Your task to perform on an android device: View the shopping cart on walmart. Add "energizer triple a" to the cart on walmart Image 0: 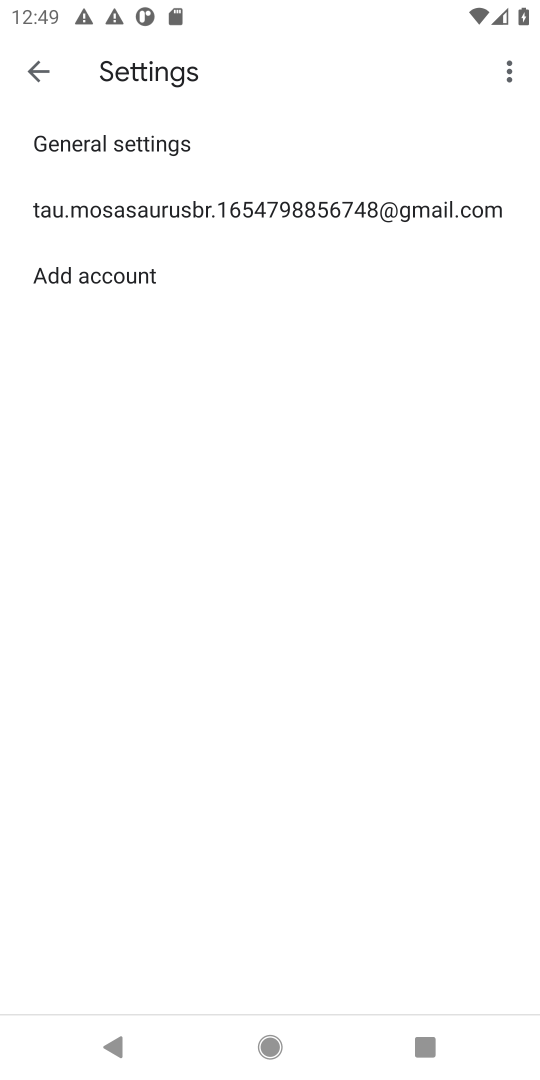
Step 0: press home button
Your task to perform on an android device: View the shopping cart on walmart. Add "energizer triple a" to the cart on walmart Image 1: 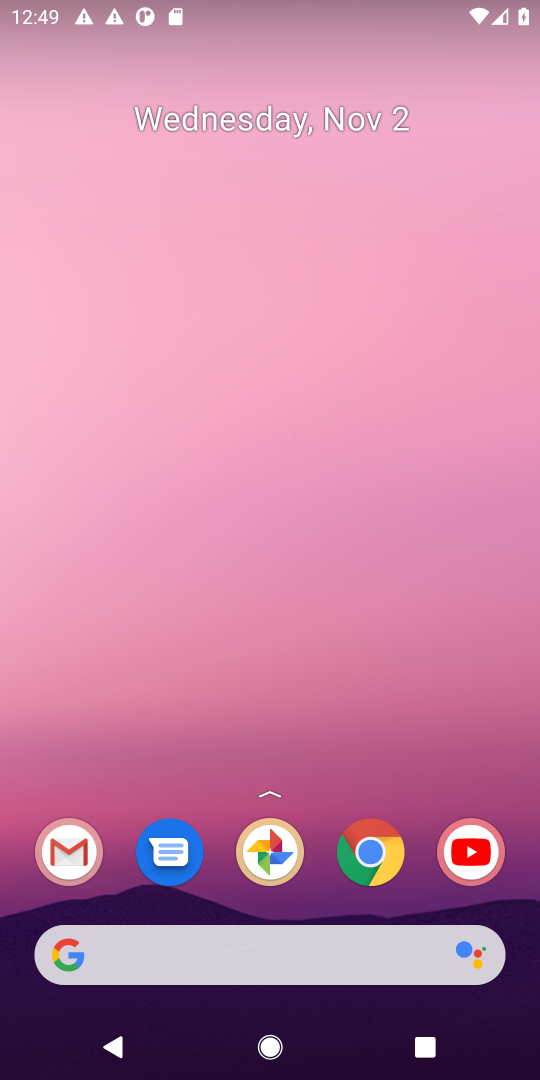
Step 1: click (59, 947)
Your task to perform on an android device: View the shopping cart on walmart. Add "energizer triple a" to the cart on walmart Image 2: 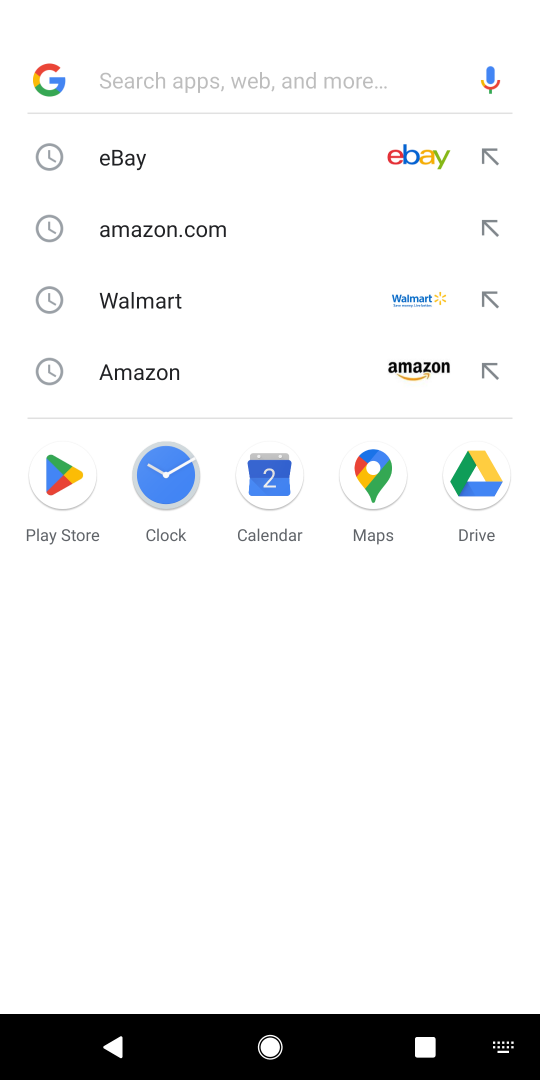
Step 2: click (156, 289)
Your task to perform on an android device: View the shopping cart on walmart. Add "energizer triple a" to the cart on walmart Image 3: 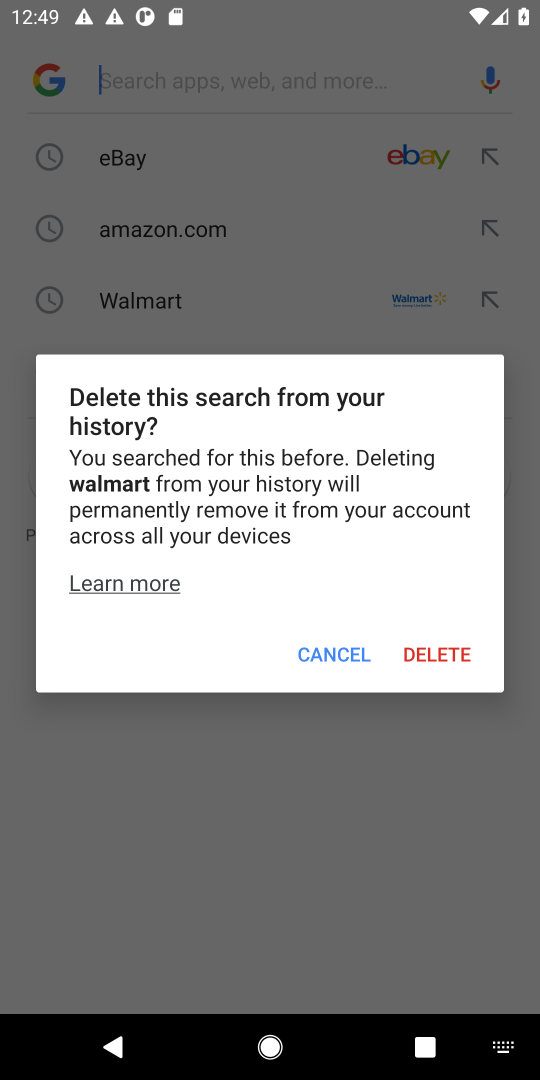
Step 3: click (300, 654)
Your task to perform on an android device: View the shopping cart on walmart. Add "energizer triple a" to the cart on walmart Image 4: 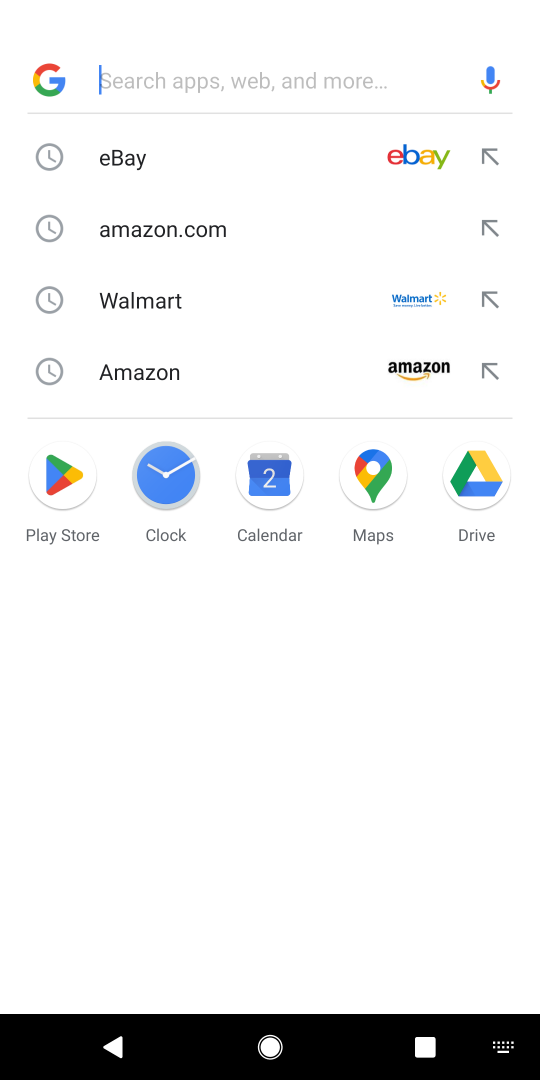
Step 4: click (153, 297)
Your task to perform on an android device: View the shopping cart on walmart. Add "energizer triple a" to the cart on walmart Image 5: 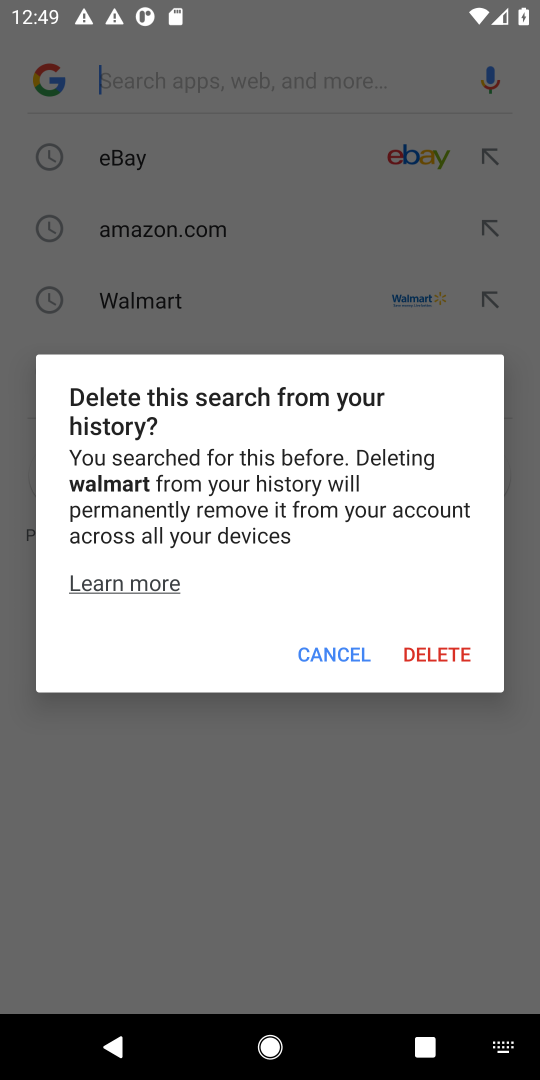
Step 5: click (407, 652)
Your task to perform on an android device: View the shopping cart on walmart. Add "energizer triple a" to the cart on walmart Image 6: 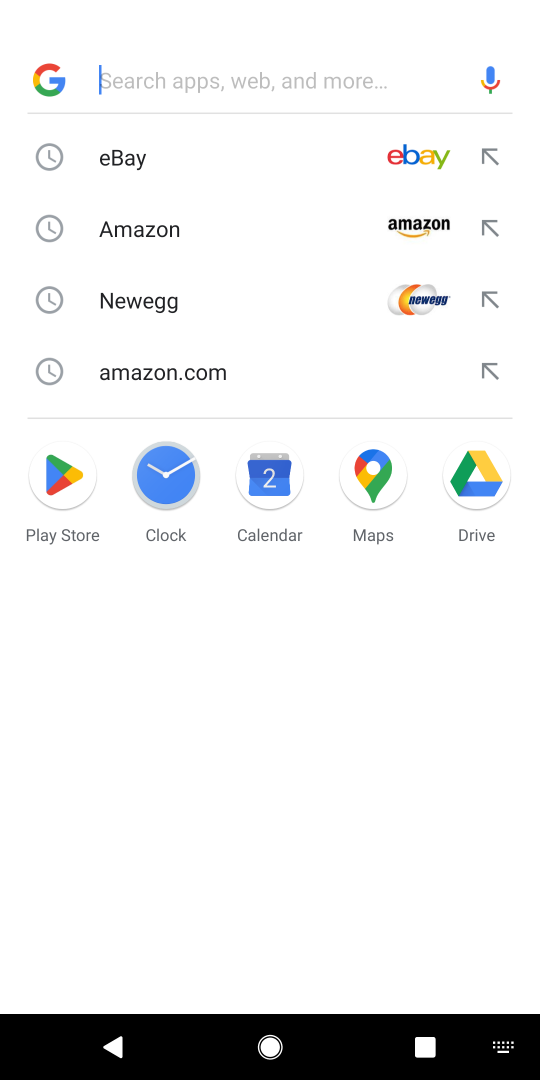
Step 6: type "walmart"
Your task to perform on an android device: View the shopping cart on walmart. Add "energizer triple a" to the cart on walmart Image 7: 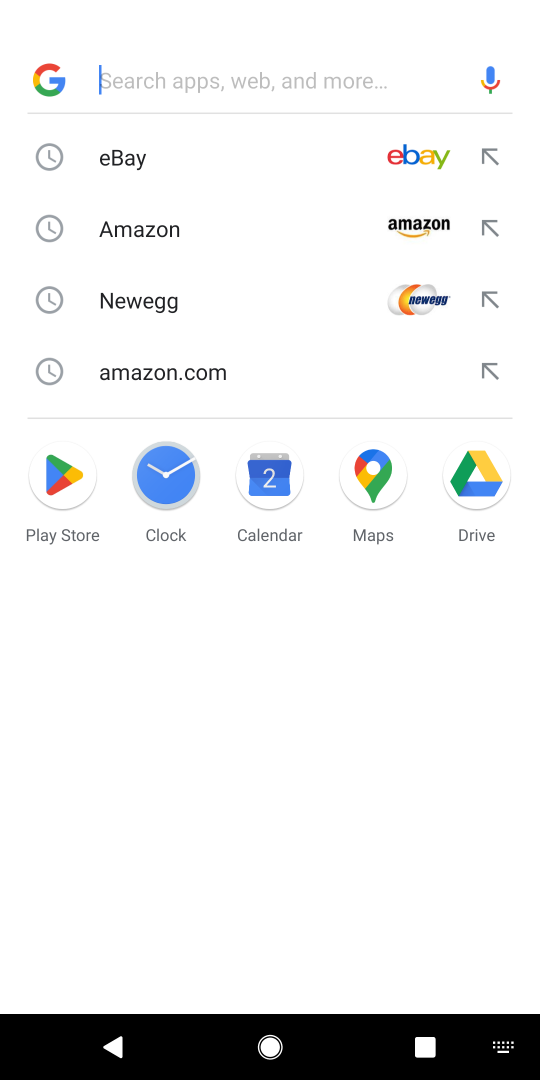
Step 7: click (132, 78)
Your task to perform on an android device: View the shopping cart on walmart. Add "energizer triple a" to the cart on walmart Image 8: 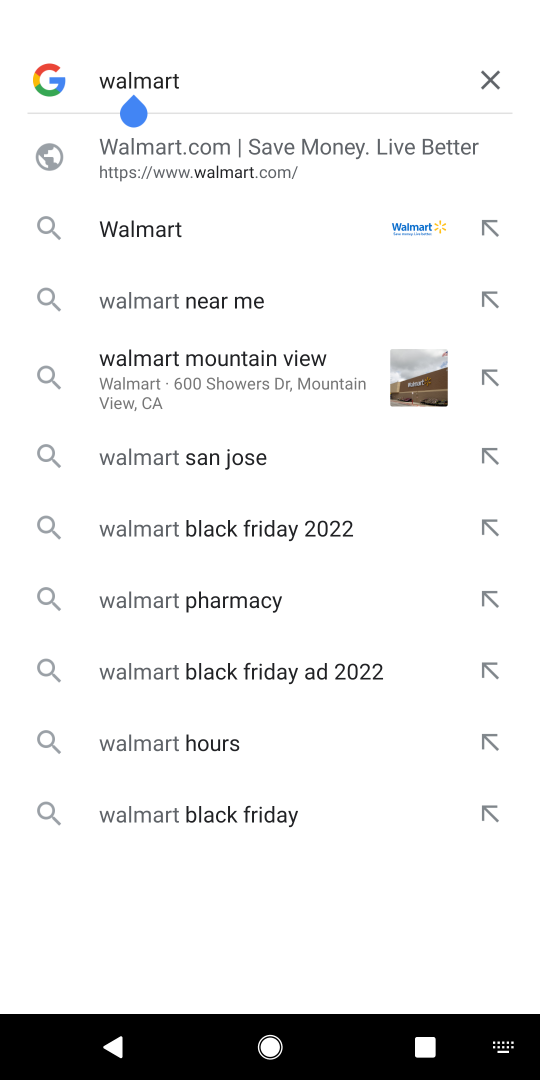
Step 8: press enter
Your task to perform on an android device: View the shopping cart on walmart. Add "energizer triple a" to the cart on walmart Image 9: 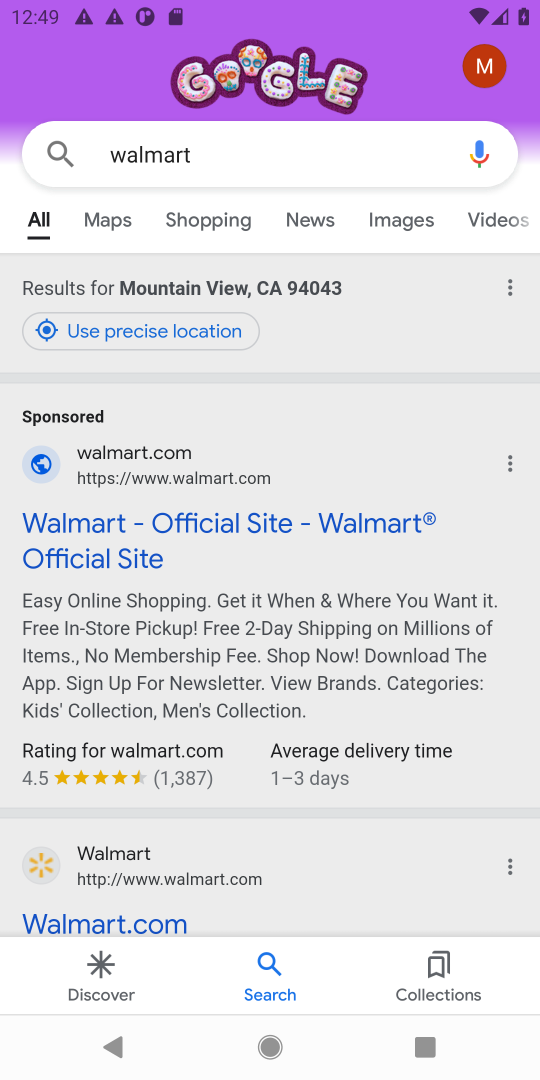
Step 9: click (162, 922)
Your task to perform on an android device: View the shopping cart on walmart. Add "energizer triple a" to the cart on walmart Image 10: 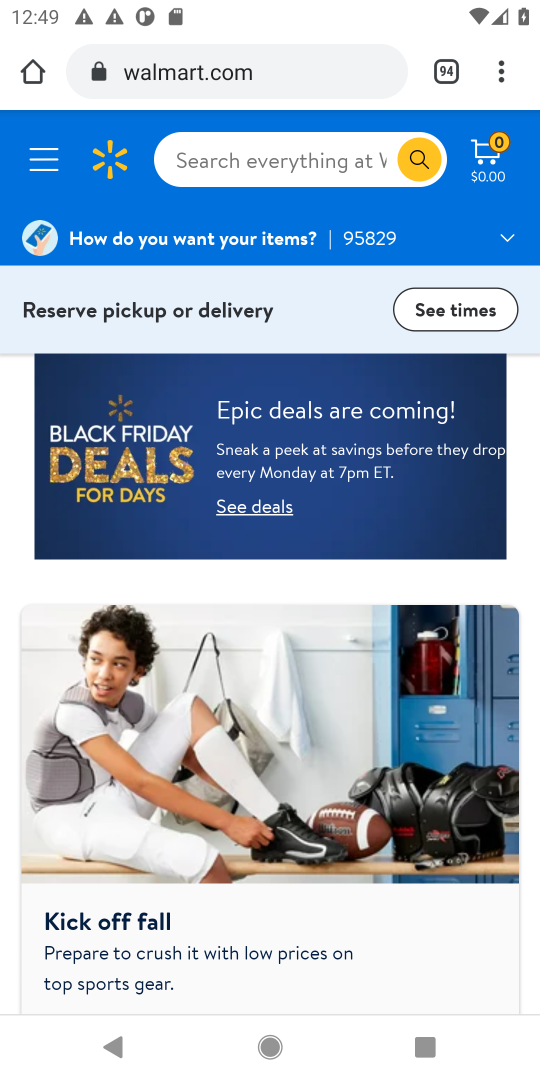
Step 10: click (244, 154)
Your task to perform on an android device: View the shopping cart on walmart. Add "energizer triple a" to the cart on walmart Image 11: 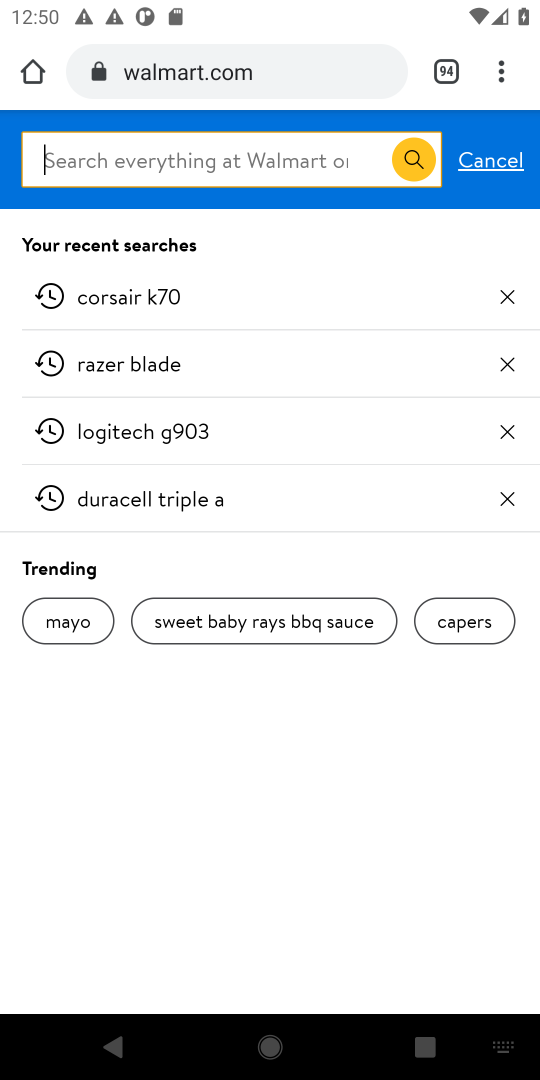
Step 11: type "energizer triple a"
Your task to perform on an android device: View the shopping cart on walmart. Add "energizer triple a" to the cart on walmart Image 12: 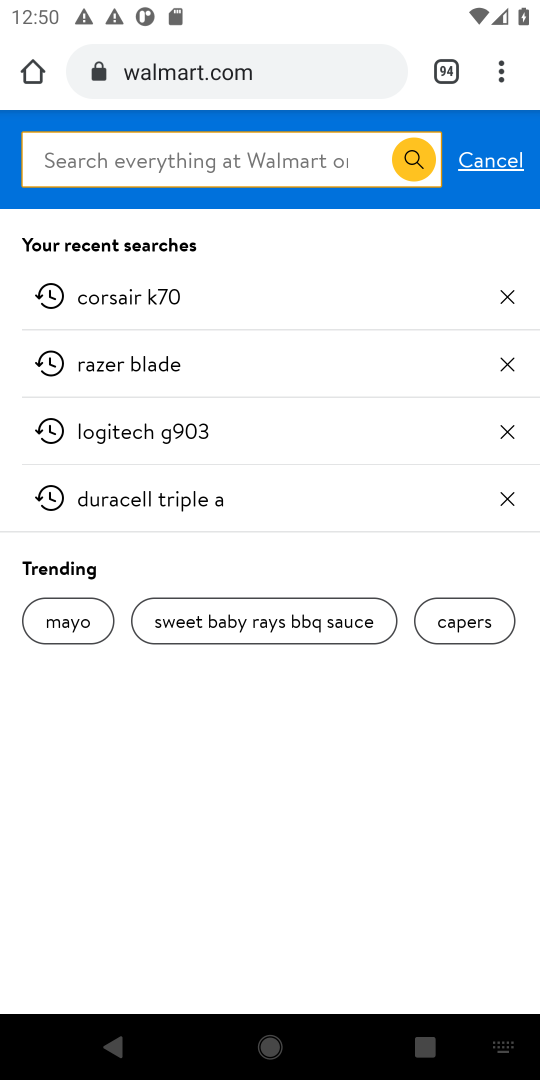
Step 12: click (94, 157)
Your task to perform on an android device: View the shopping cart on walmart. Add "energizer triple a" to the cart on walmart Image 13: 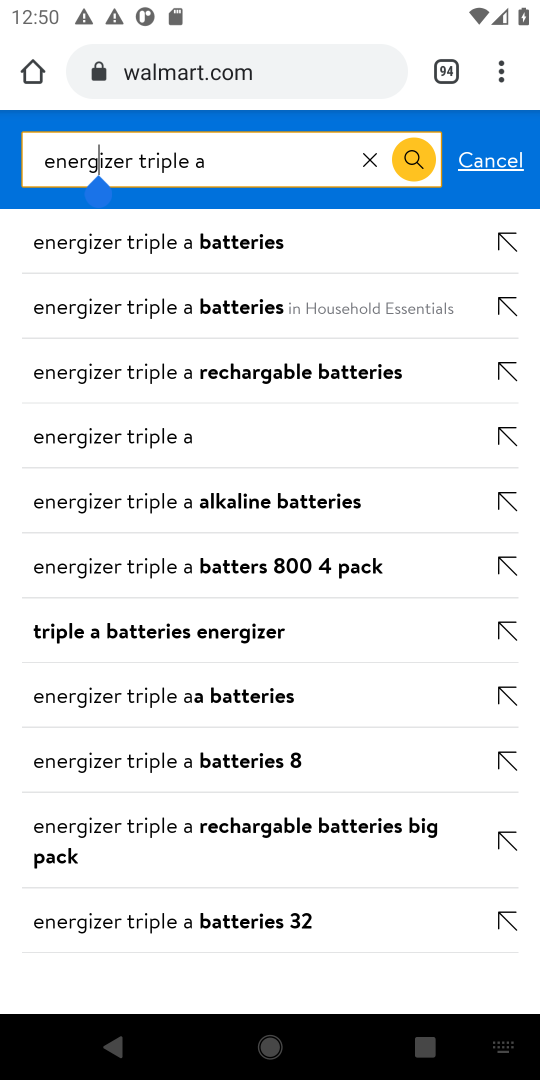
Step 13: press enter
Your task to perform on an android device: View the shopping cart on walmart. Add "energizer triple a" to the cart on walmart Image 14: 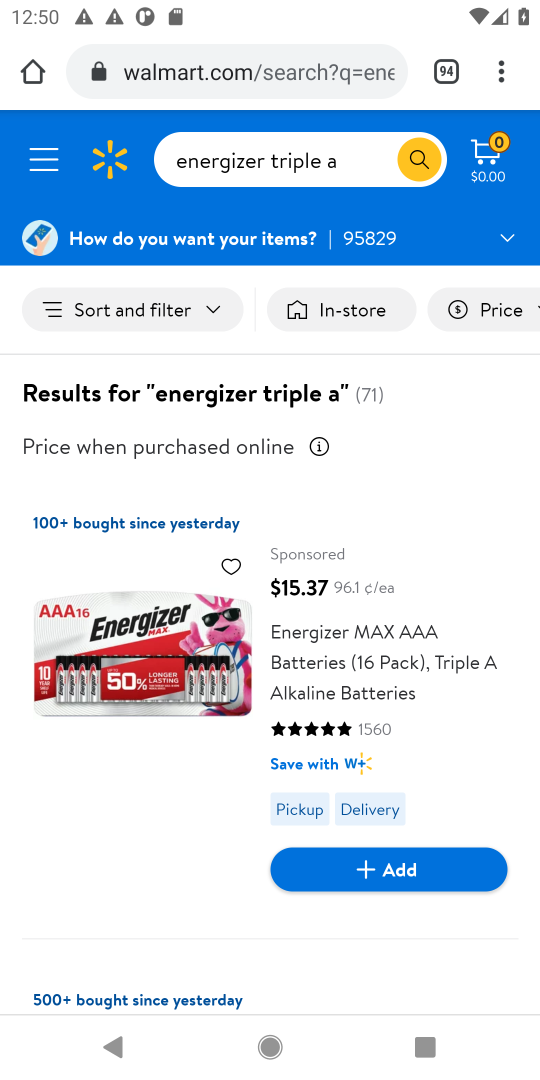
Step 14: click (327, 637)
Your task to perform on an android device: View the shopping cart on walmart. Add "energizer triple a" to the cart on walmart Image 15: 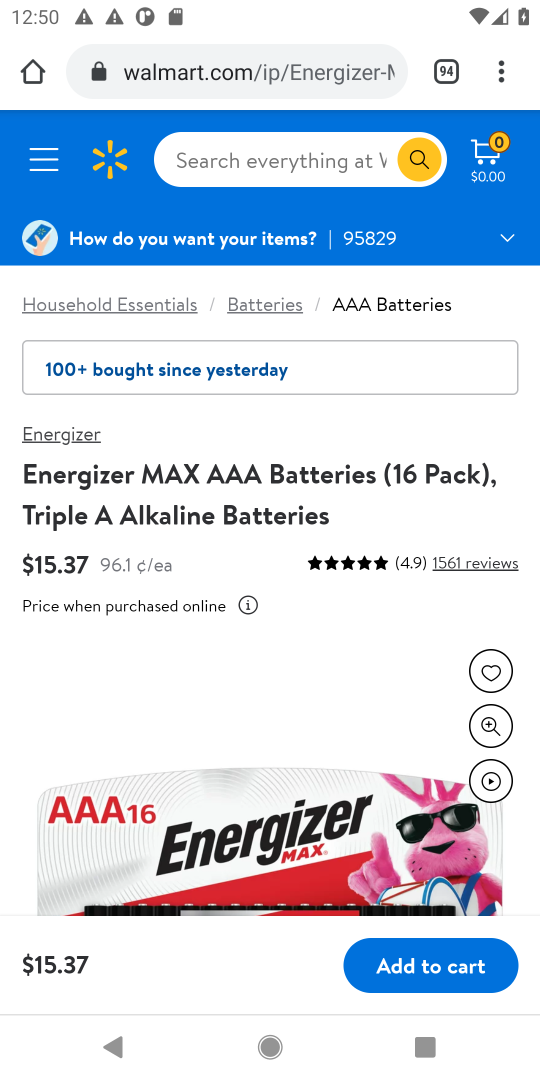
Step 15: click (439, 969)
Your task to perform on an android device: View the shopping cart on walmart. Add "energizer triple a" to the cart on walmart Image 16: 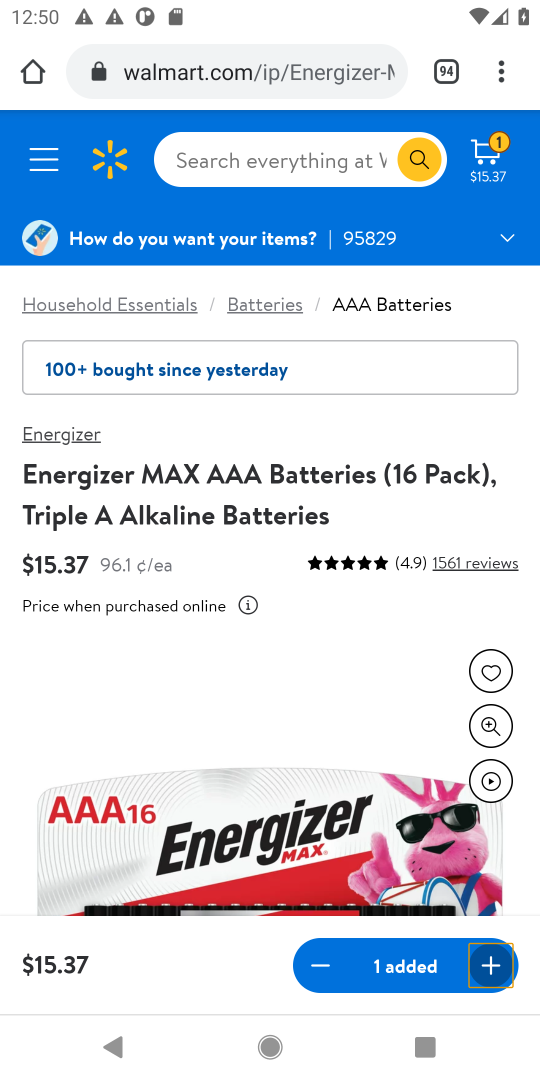
Step 16: task complete